Your task to perform on an android device: add a contact Image 0: 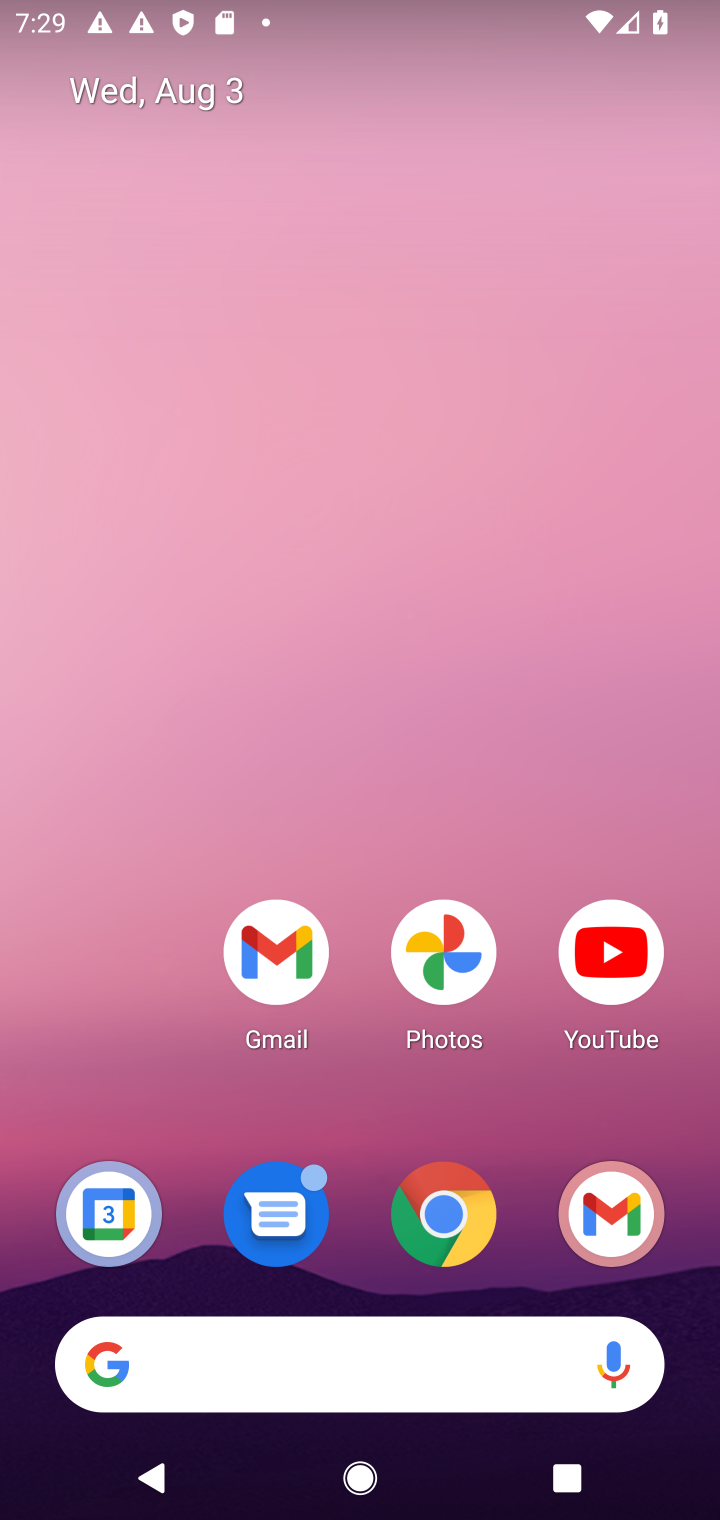
Step 0: drag from (387, 833) to (479, 67)
Your task to perform on an android device: add a contact Image 1: 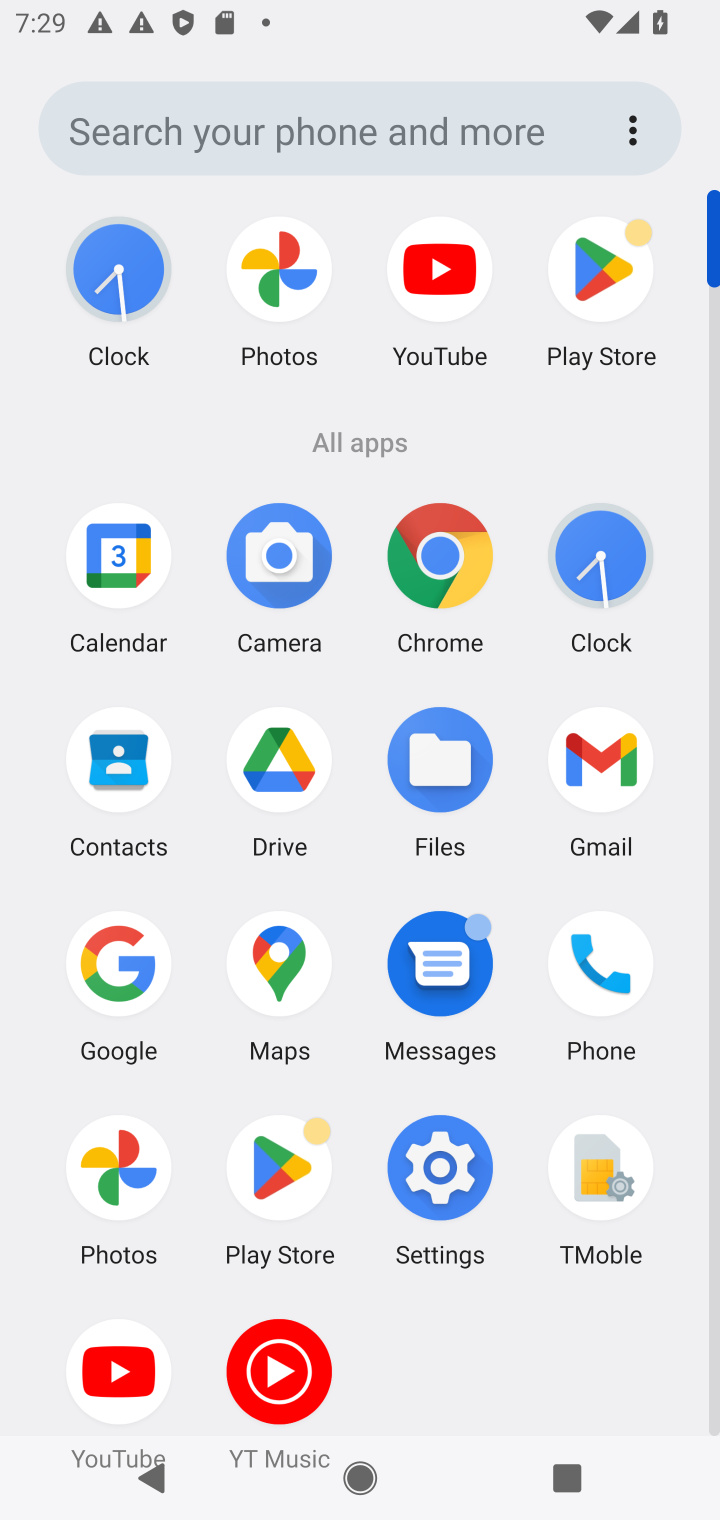
Step 1: click (120, 756)
Your task to perform on an android device: add a contact Image 2: 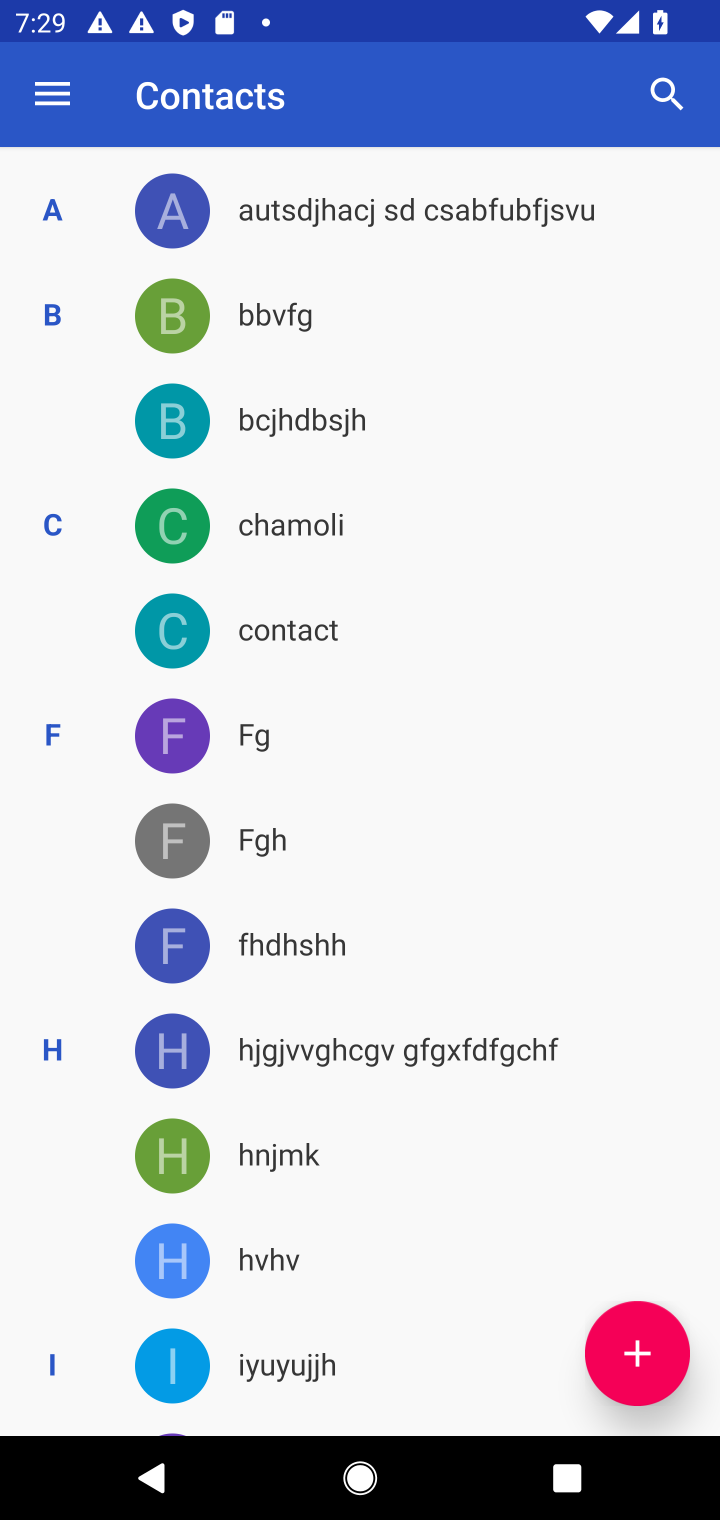
Step 2: click (621, 1346)
Your task to perform on an android device: add a contact Image 3: 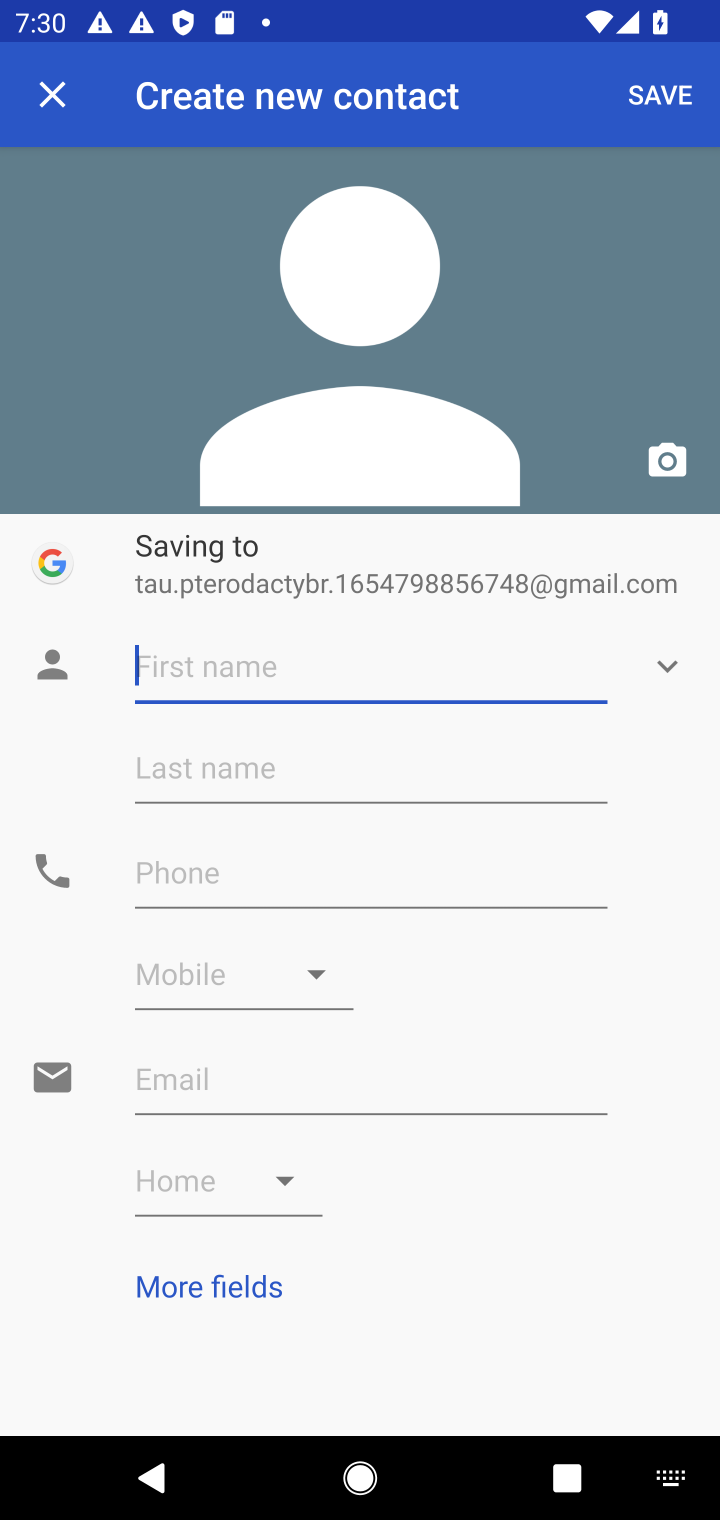
Step 3: type "piku"
Your task to perform on an android device: add a contact Image 4: 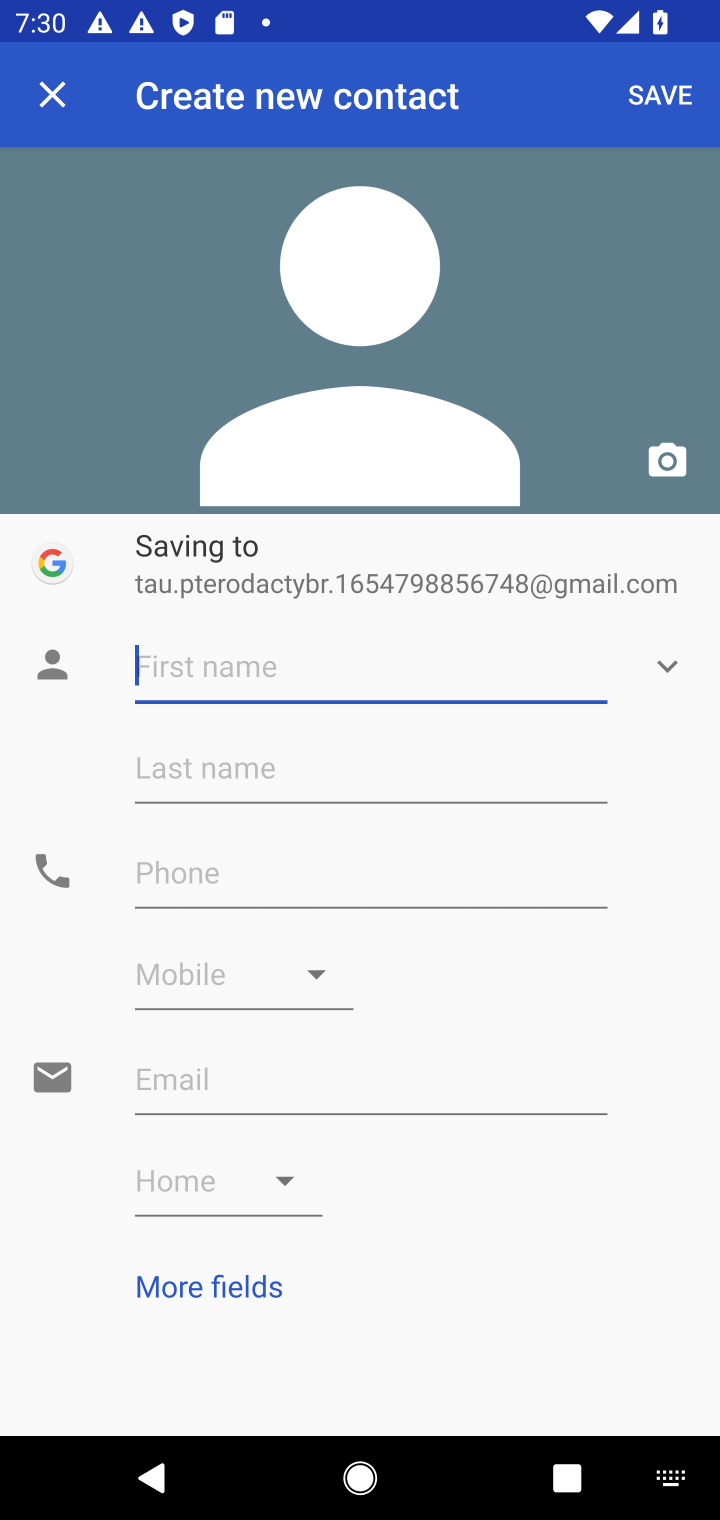
Step 4: click (279, 746)
Your task to perform on an android device: add a contact Image 5: 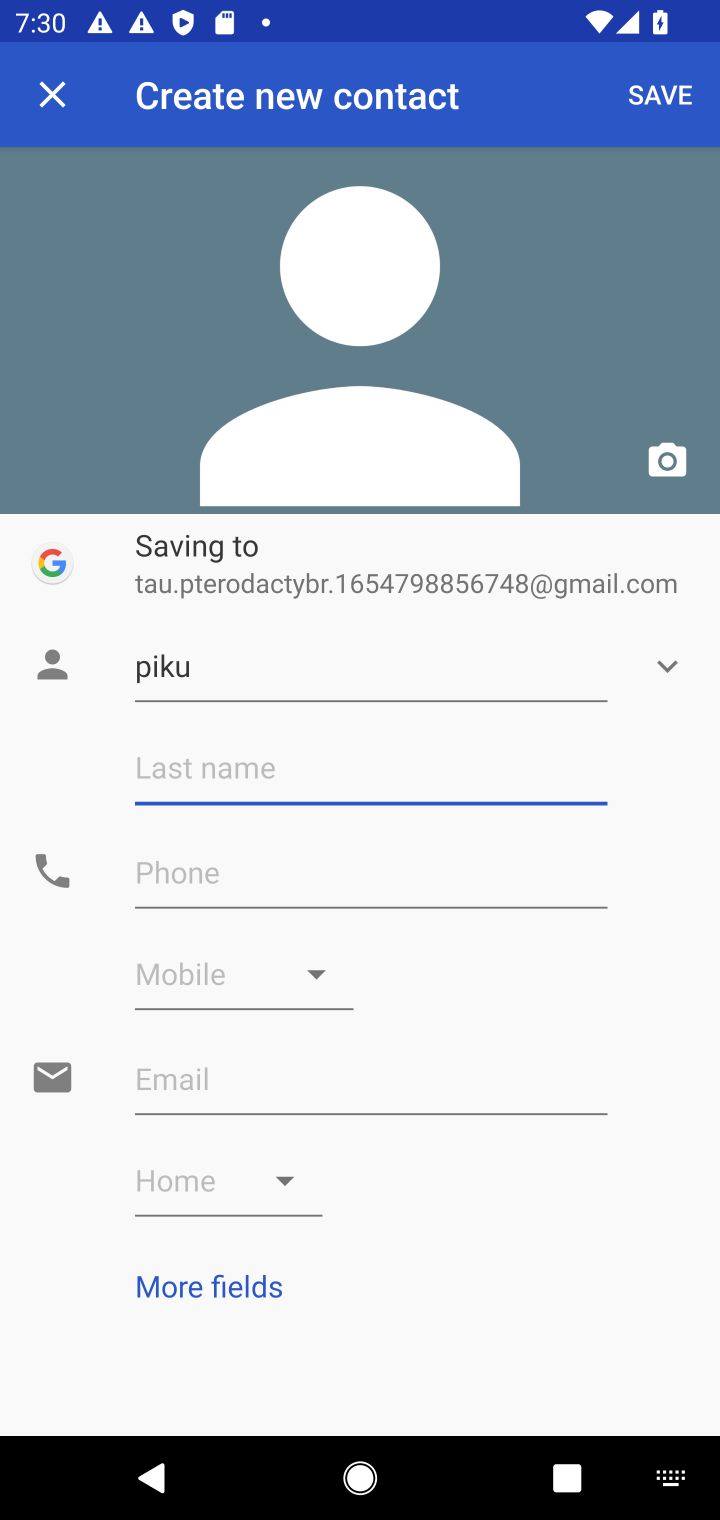
Step 5: type "likhi"
Your task to perform on an android device: add a contact Image 6: 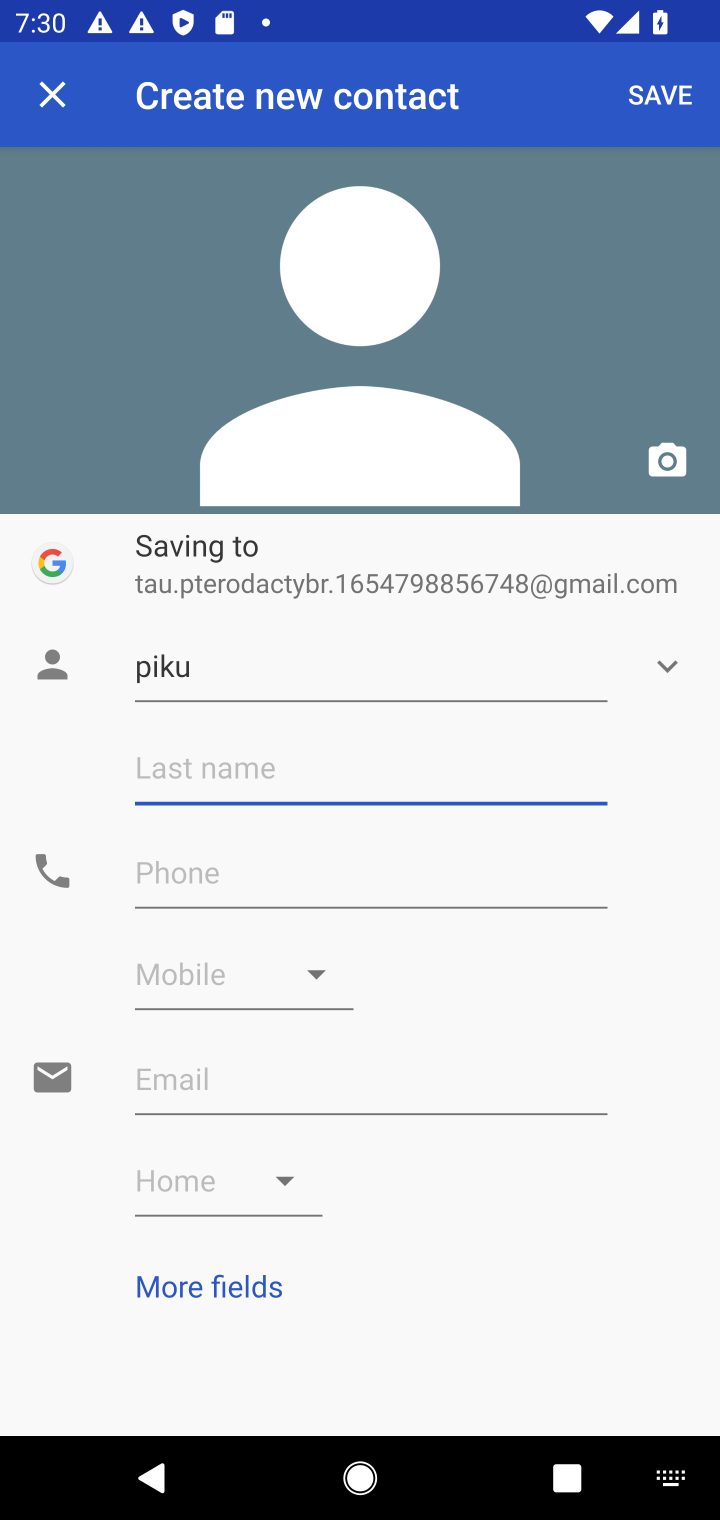
Step 6: click (341, 875)
Your task to perform on an android device: add a contact Image 7: 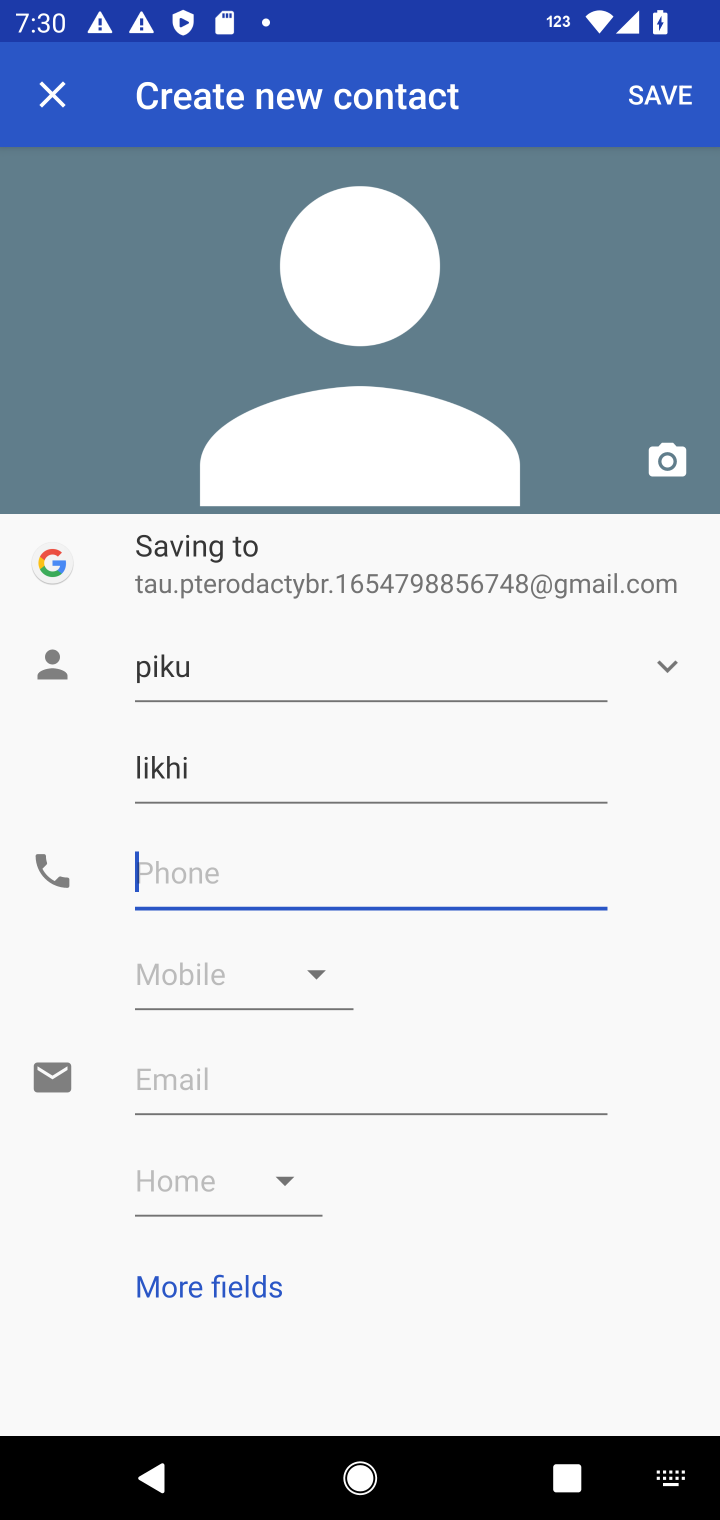
Step 7: type "8987678908"
Your task to perform on an android device: add a contact Image 8: 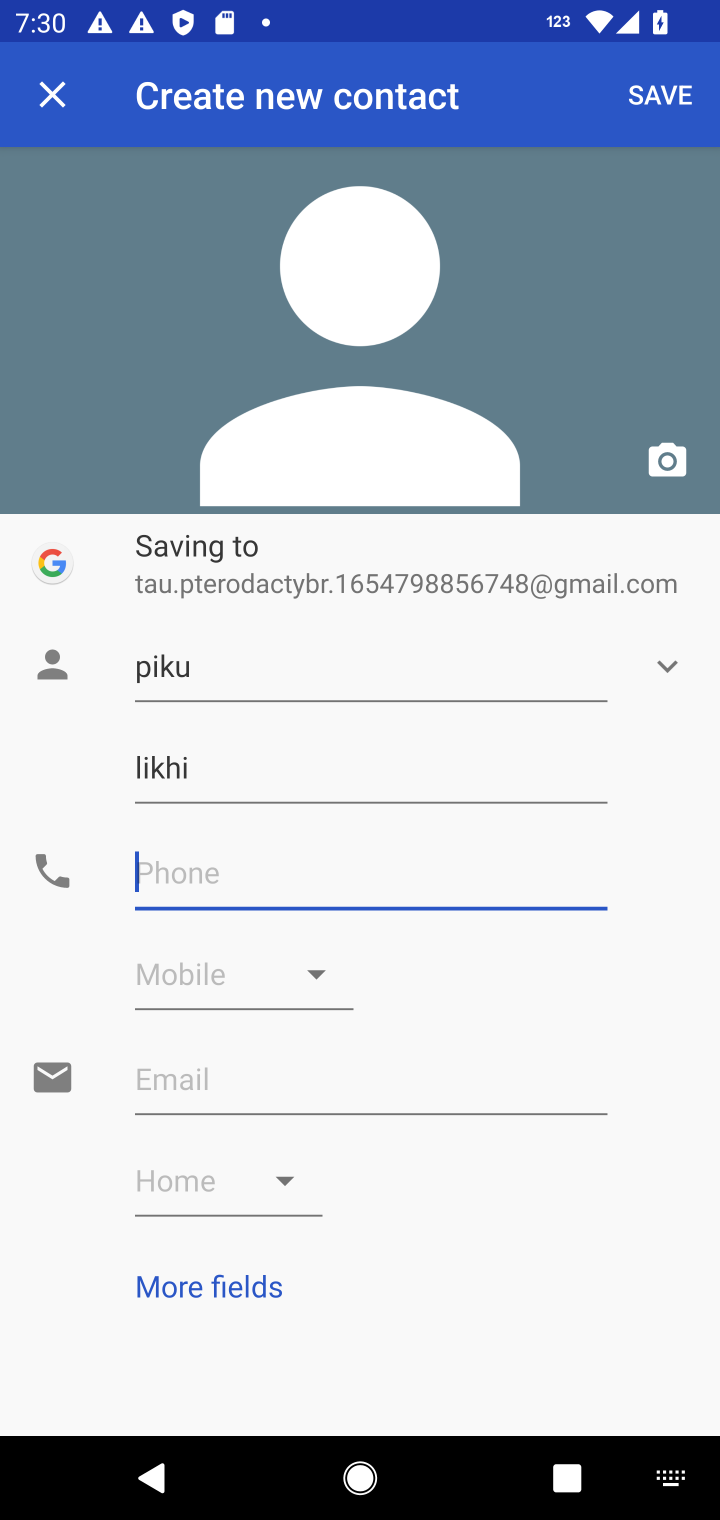
Step 8: click (220, 900)
Your task to perform on an android device: add a contact Image 9: 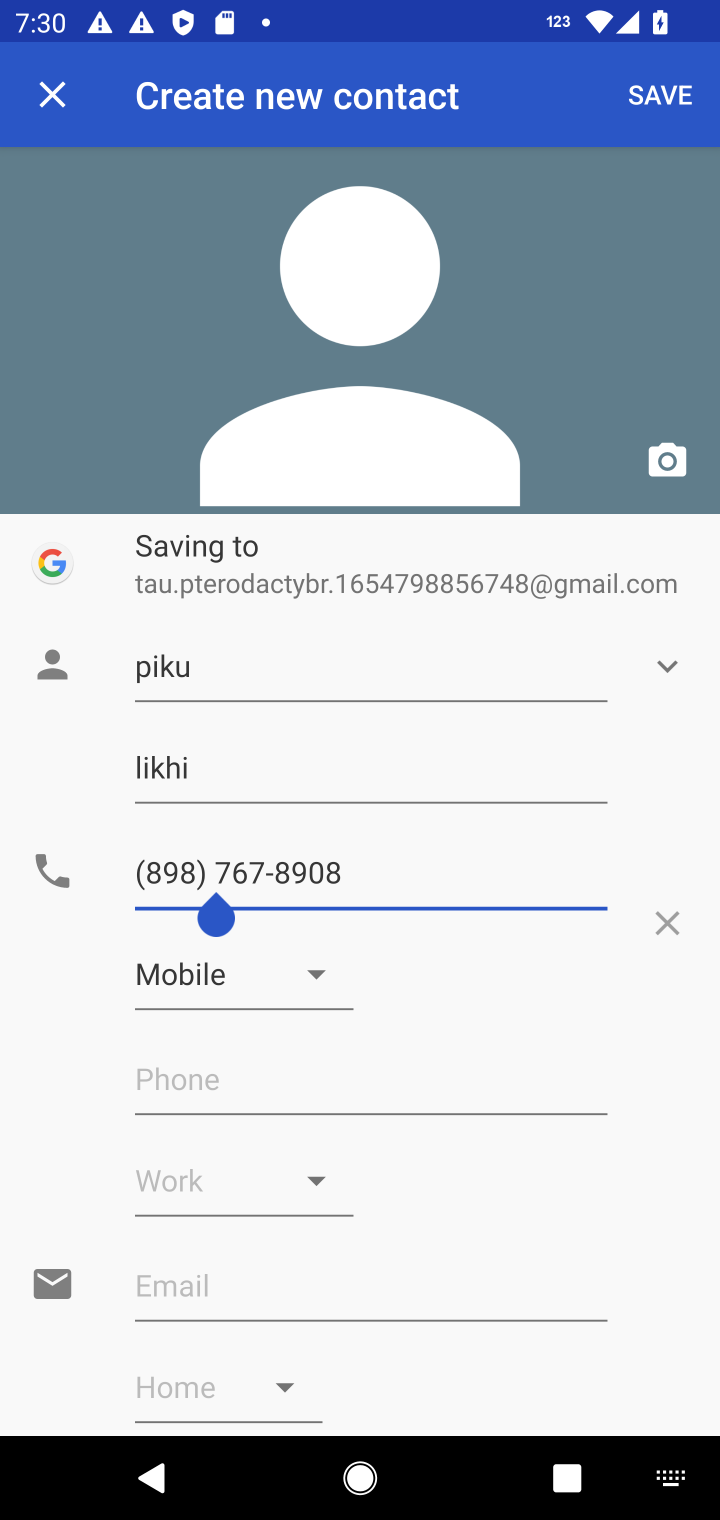
Step 9: click (625, 100)
Your task to perform on an android device: add a contact Image 10: 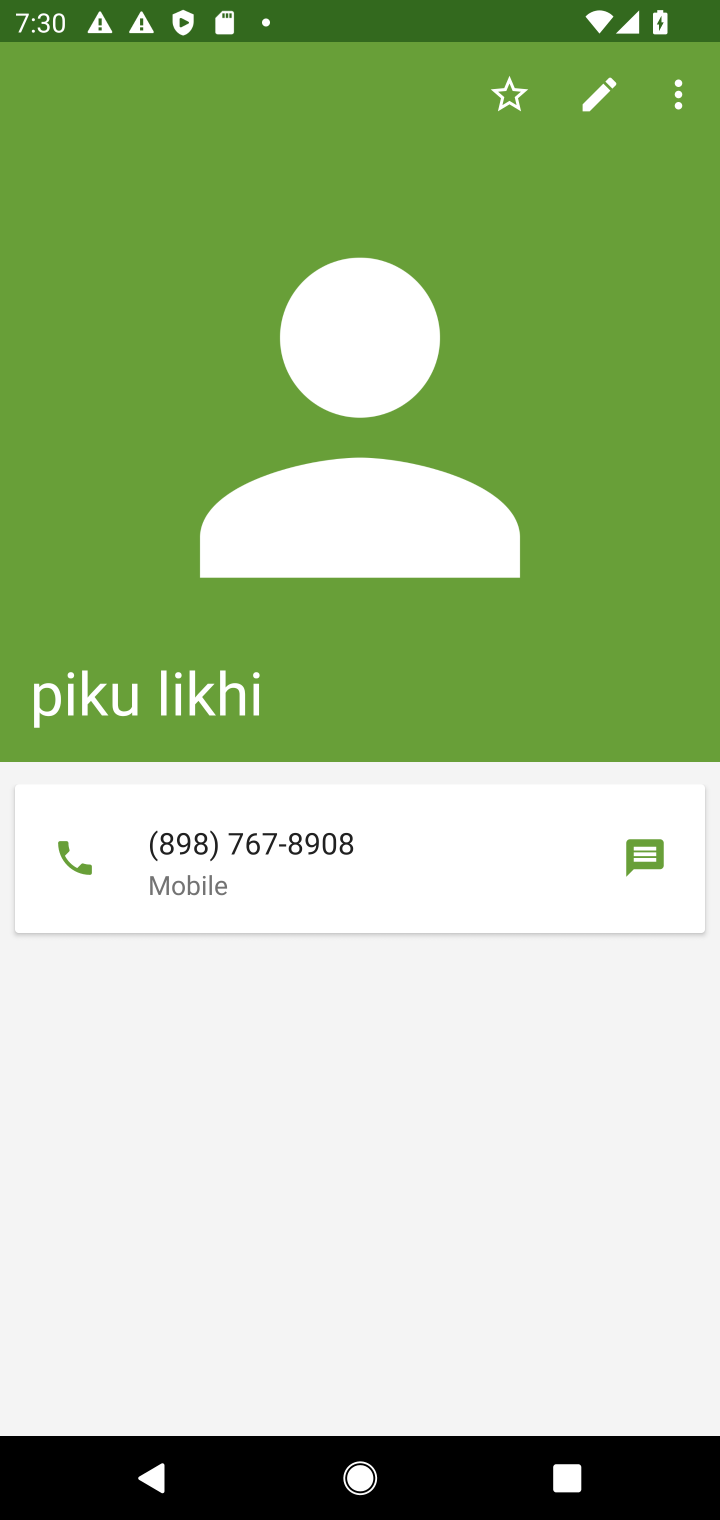
Step 10: task complete